Your task to perform on an android device: Go to display settings Image 0: 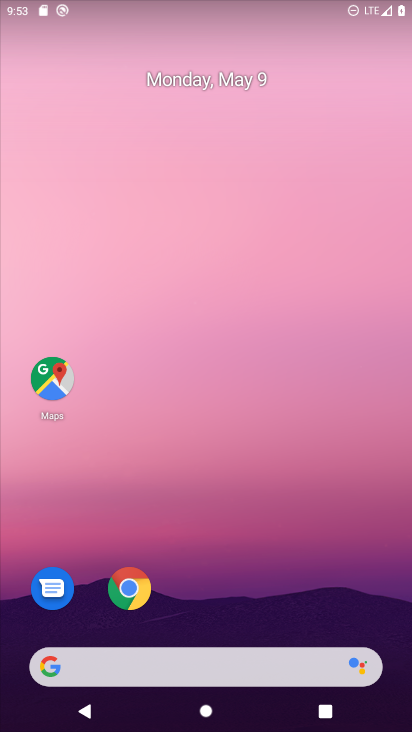
Step 0: drag from (299, 592) to (251, 7)
Your task to perform on an android device: Go to display settings Image 1: 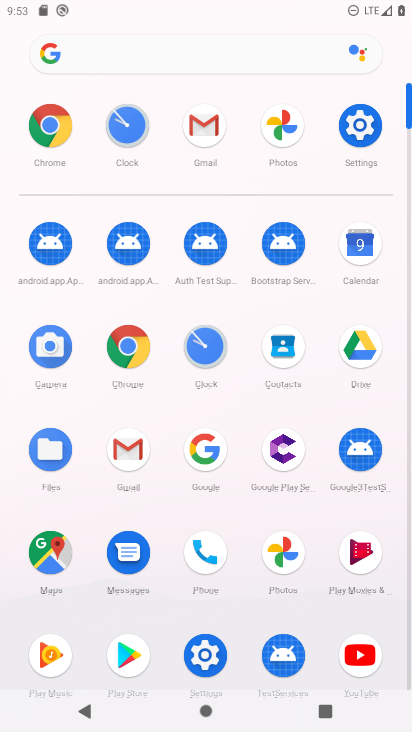
Step 1: click (367, 114)
Your task to perform on an android device: Go to display settings Image 2: 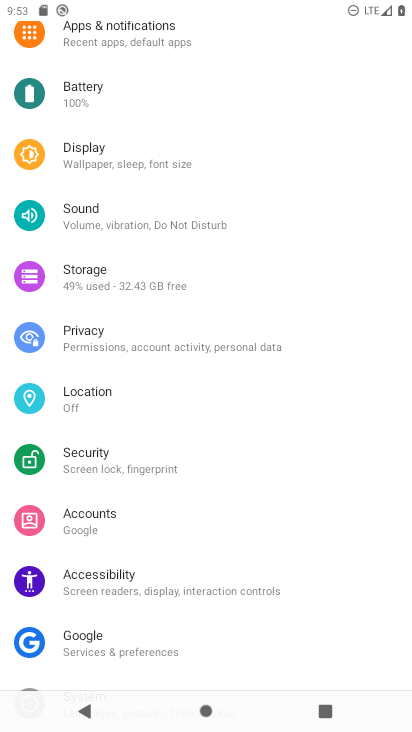
Step 2: click (257, 167)
Your task to perform on an android device: Go to display settings Image 3: 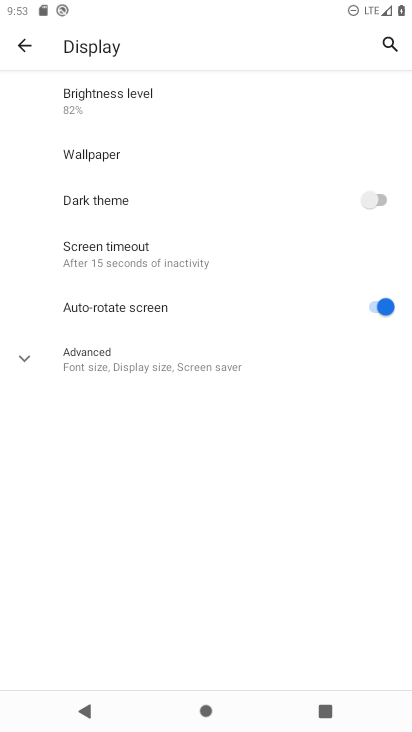
Step 3: task complete